Your task to perform on an android device: Go to display settings Image 0: 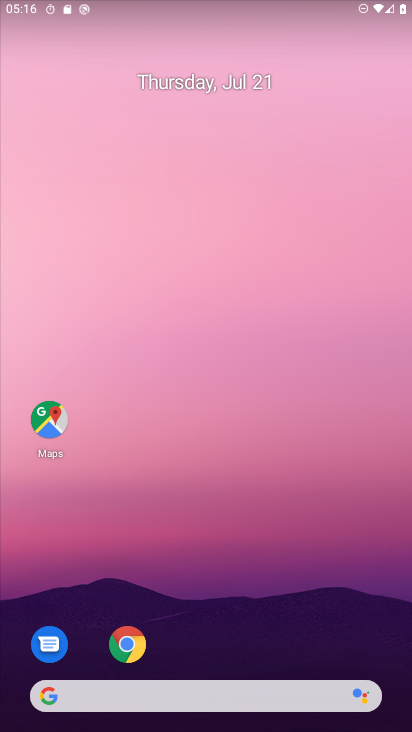
Step 0: drag from (184, 636) to (191, 168)
Your task to perform on an android device: Go to display settings Image 1: 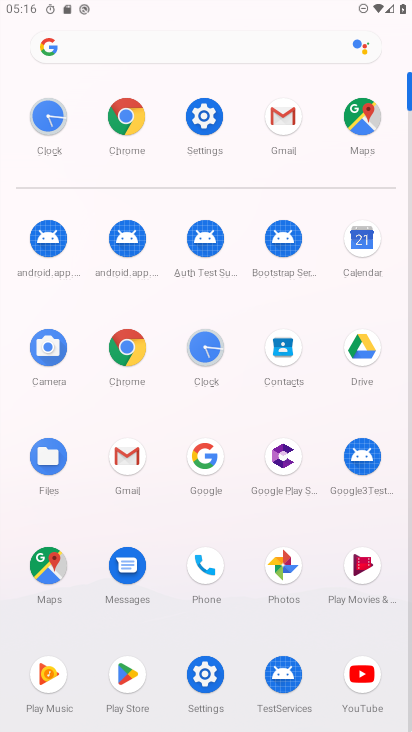
Step 1: click (200, 118)
Your task to perform on an android device: Go to display settings Image 2: 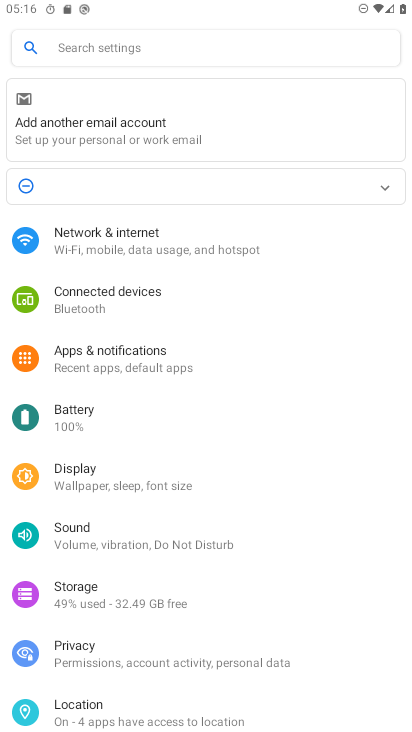
Step 2: click (62, 466)
Your task to perform on an android device: Go to display settings Image 3: 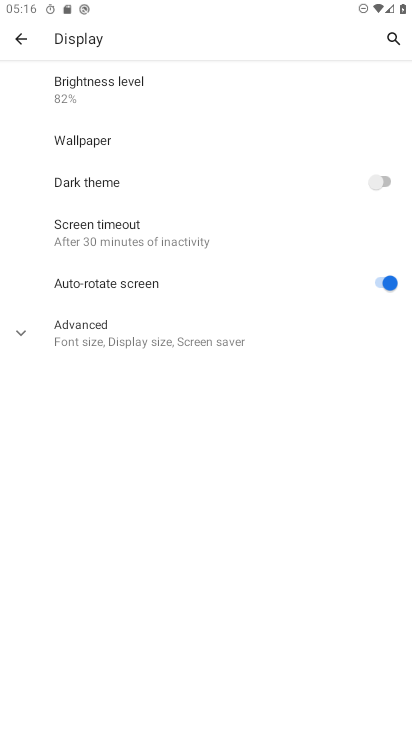
Step 3: task complete